Your task to perform on an android device: add a label to a message in the gmail app Image 0: 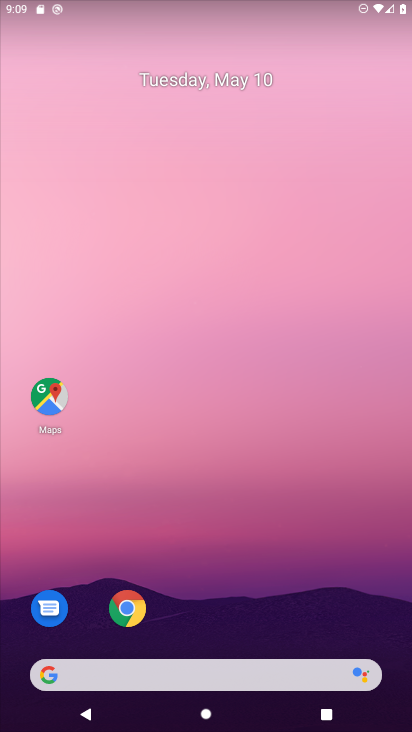
Step 0: drag from (346, 623) to (319, 49)
Your task to perform on an android device: add a label to a message in the gmail app Image 1: 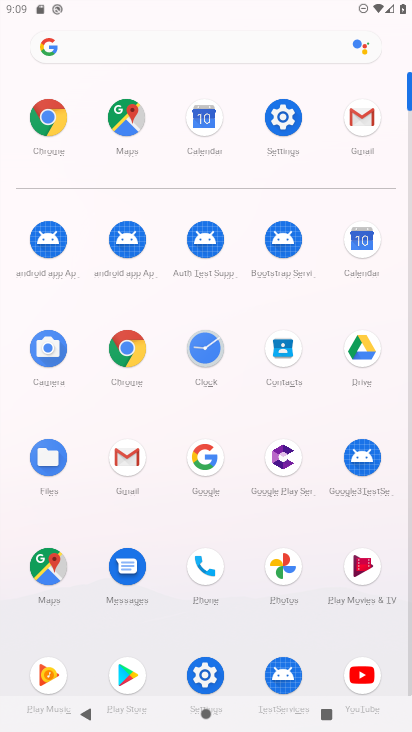
Step 1: click (128, 474)
Your task to perform on an android device: add a label to a message in the gmail app Image 2: 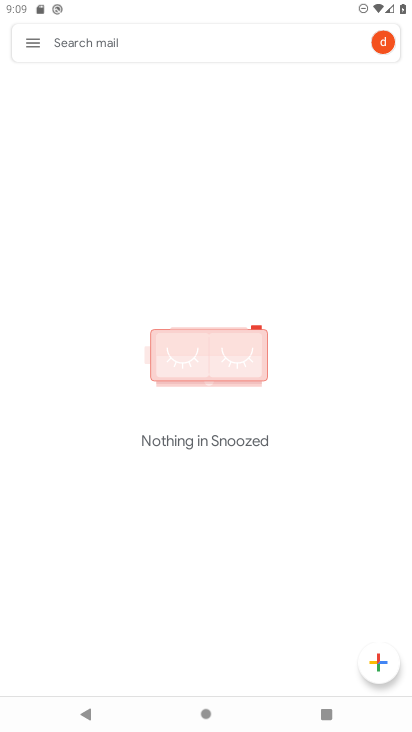
Step 2: click (39, 50)
Your task to perform on an android device: add a label to a message in the gmail app Image 3: 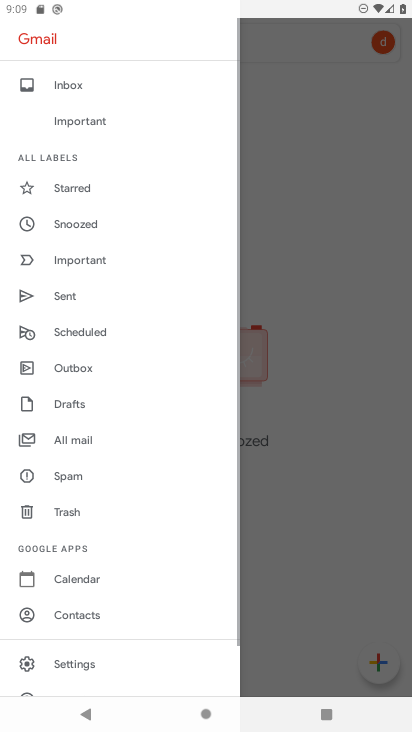
Step 3: drag from (140, 131) to (163, 473)
Your task to perform on an android device: add a label to a message in the gmail app Image 4: 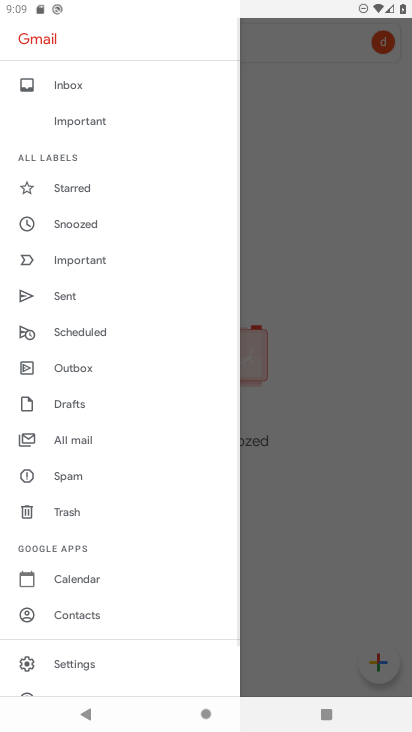
Step 4: click (76, 76)
Your task to perform on an android device: add a label to a message in the gmail app Image 5: 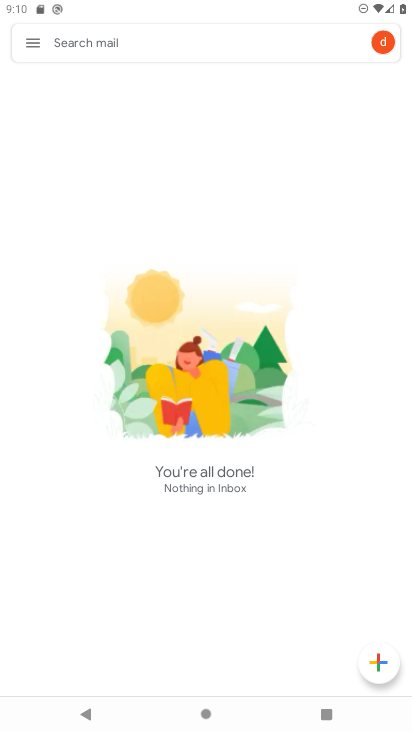
Step 5: task complete